Your task to perform on an android device: Go to settings Image 0: 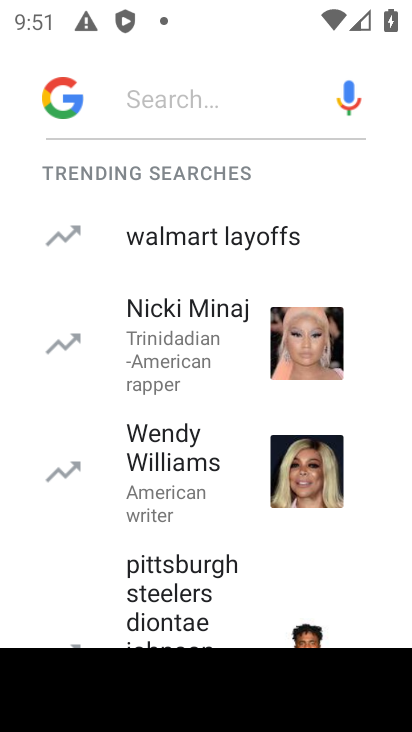
Step 0: press home button
Your task to perform on an android device: Go to settings Image 1: 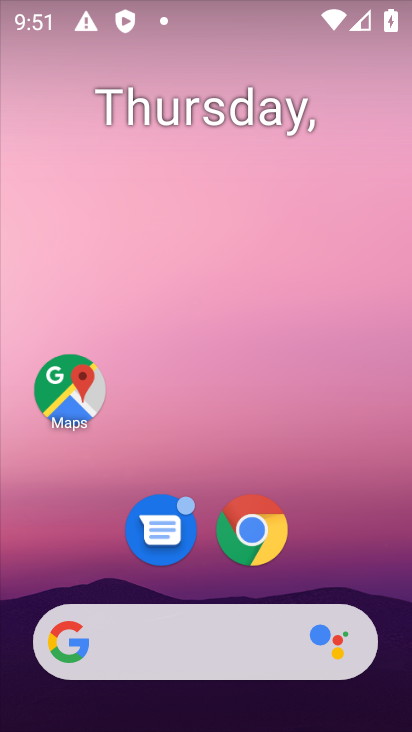
Step 1: drag from (330, 561) to (283, 84)
Your task to perform on an android device: Go to settings Image 2: 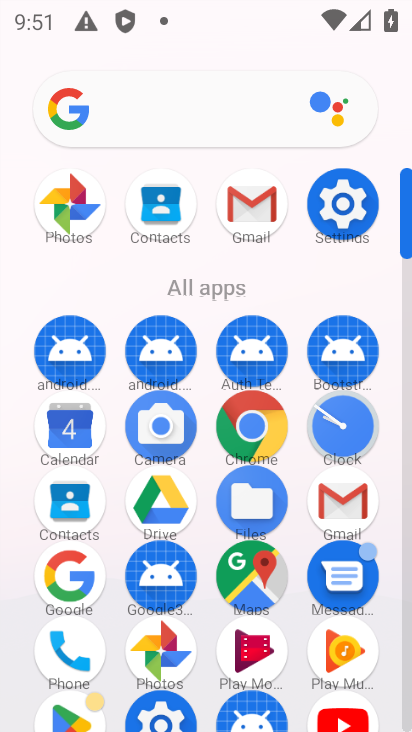
Step 2: click (359, 211)
Your task to perform on an android device: Go to settings Image 3: 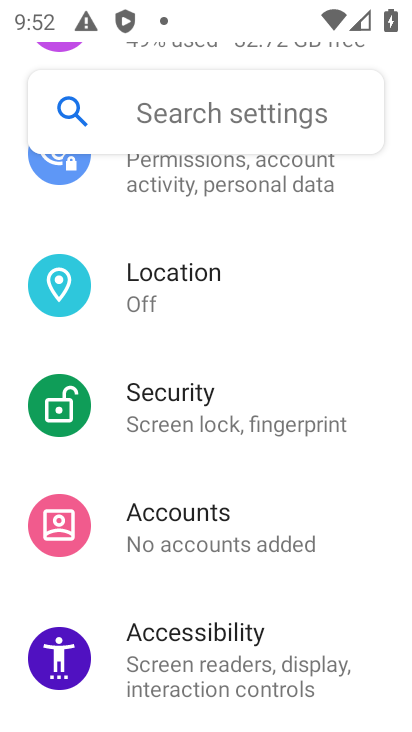
Step 3: task complete